Your task to perform on an android device: What is the news today? Image 0: 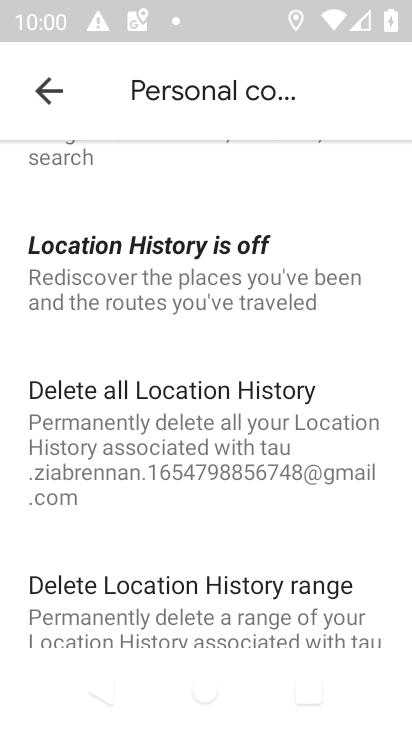
Step 0: press home button
Your task to perform on an android device: What is the news today? Image 1: 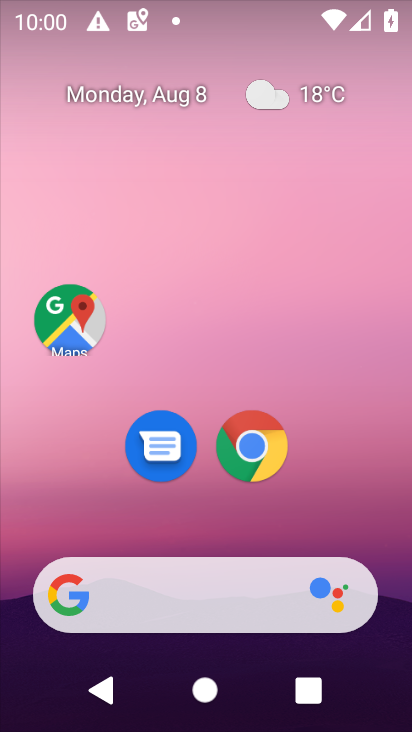
Step 1: drag from (2, 250) to (379, 264)
Your task to perform on an android device: What is the news today? Image 2: 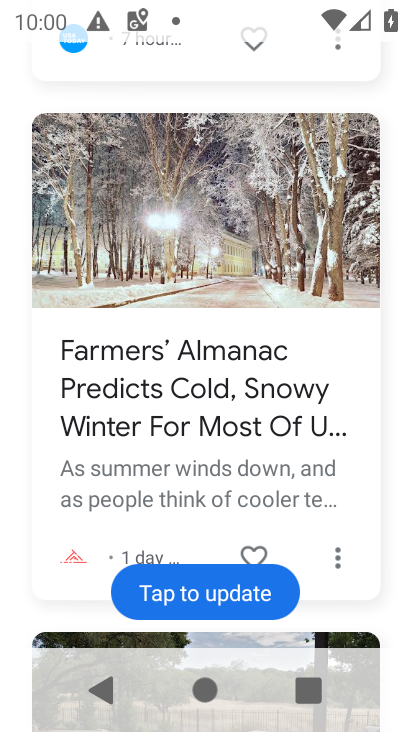
Step 2: click (195, 608)
Your task to perform on an android device: What is the news today? Image 3: 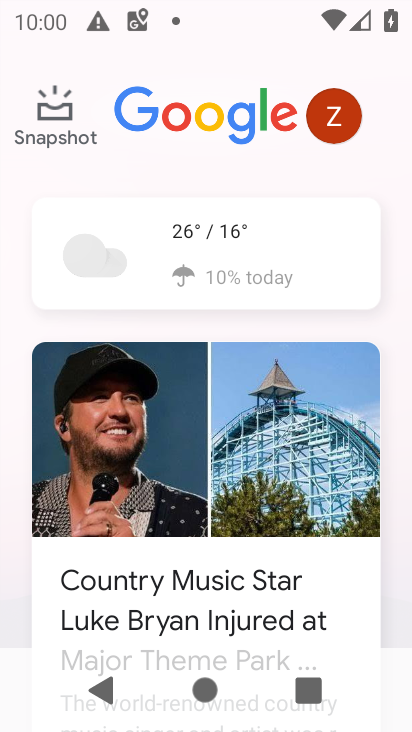
Step 3: task complete